Your task to perform on an android device: turn on showing notifications on the lock screen Image 0: 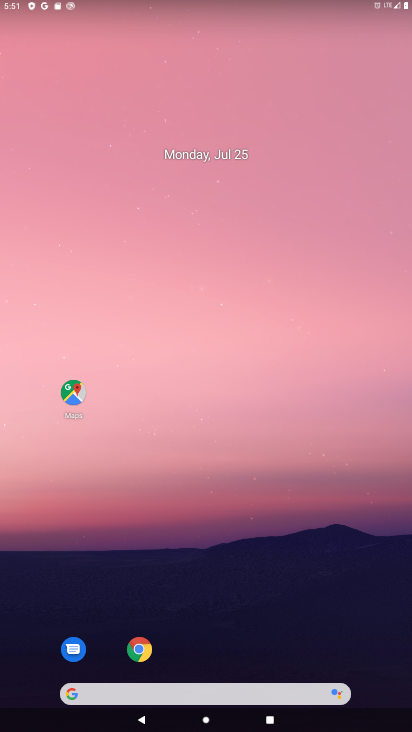
Step 0: drag from (187, 438) to (209, 0)
Your task to perform on an android device: turn on showing notifications on the lock screen Image 1: 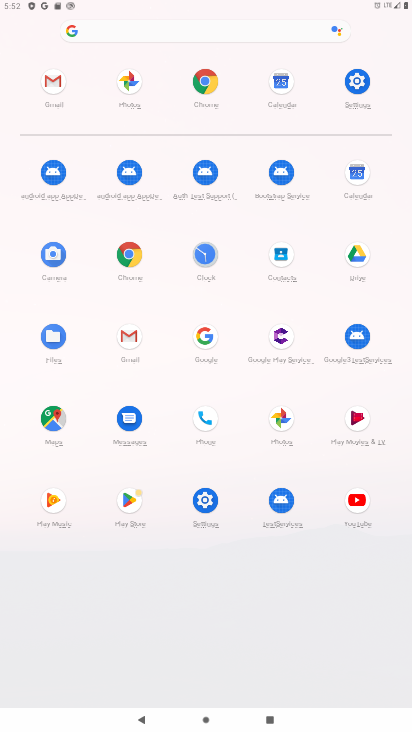
Step 1: click (356, 75)
Your task to perform on an android device: turn on showing notifications on the lock screen Image 2: 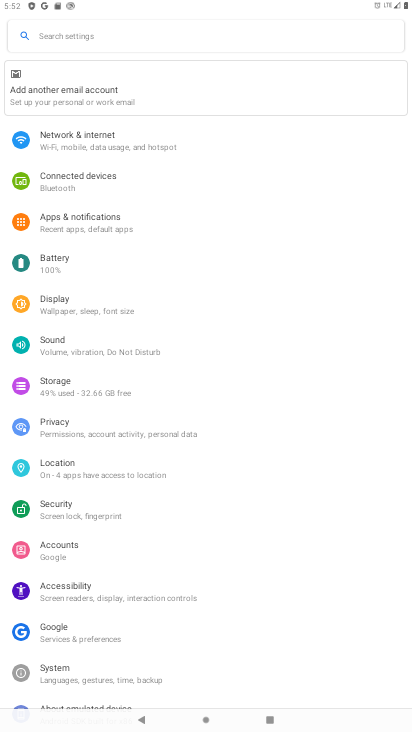
Step 2: click (90, 230)
Your task to perform on an android device: turn on showing notifications on the lock screen Image 3: 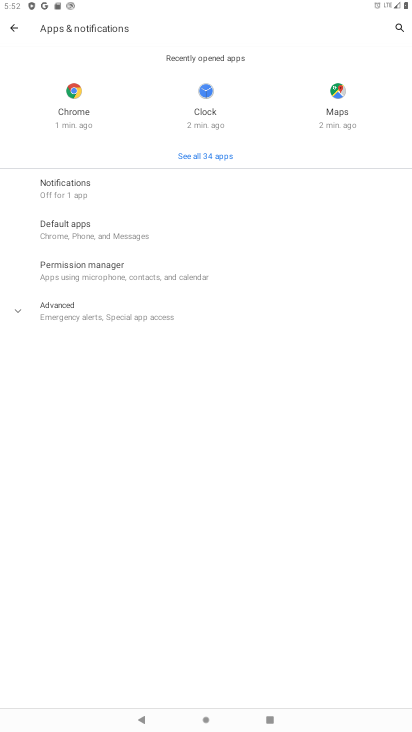
Step 3: click (78, 179)
Your task to perform on an android device: turn on showing notifications on the lock screen Image 4: 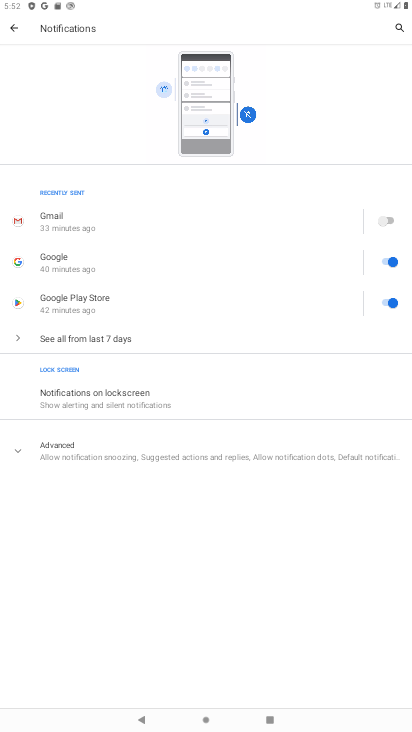
Step 4: click (85, 449)
Your task to perform on an android device: turn on showing notifications on the lock screen Image 5: 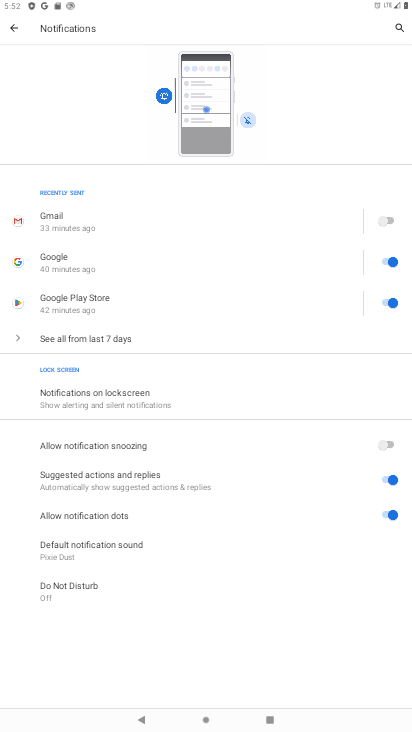
Step 5: click (136, 402)
Your task to perform on an android device: turn on showing notifications on the lock screen Image 6: 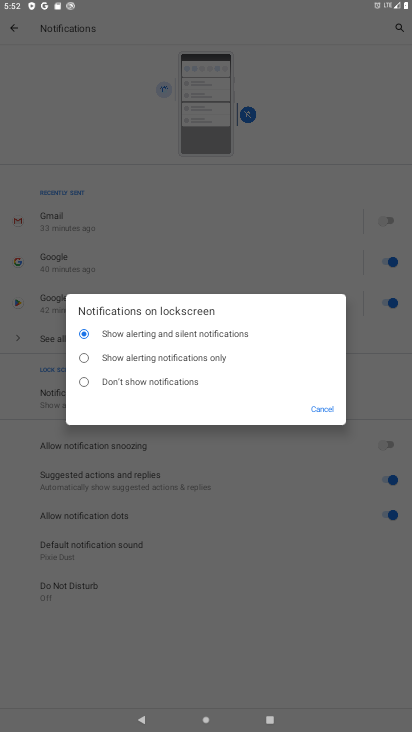
Step 6: task complete